Your task to perform on an android device: open app "DoorDash - Dasher" (install if not already installed) Image 0: 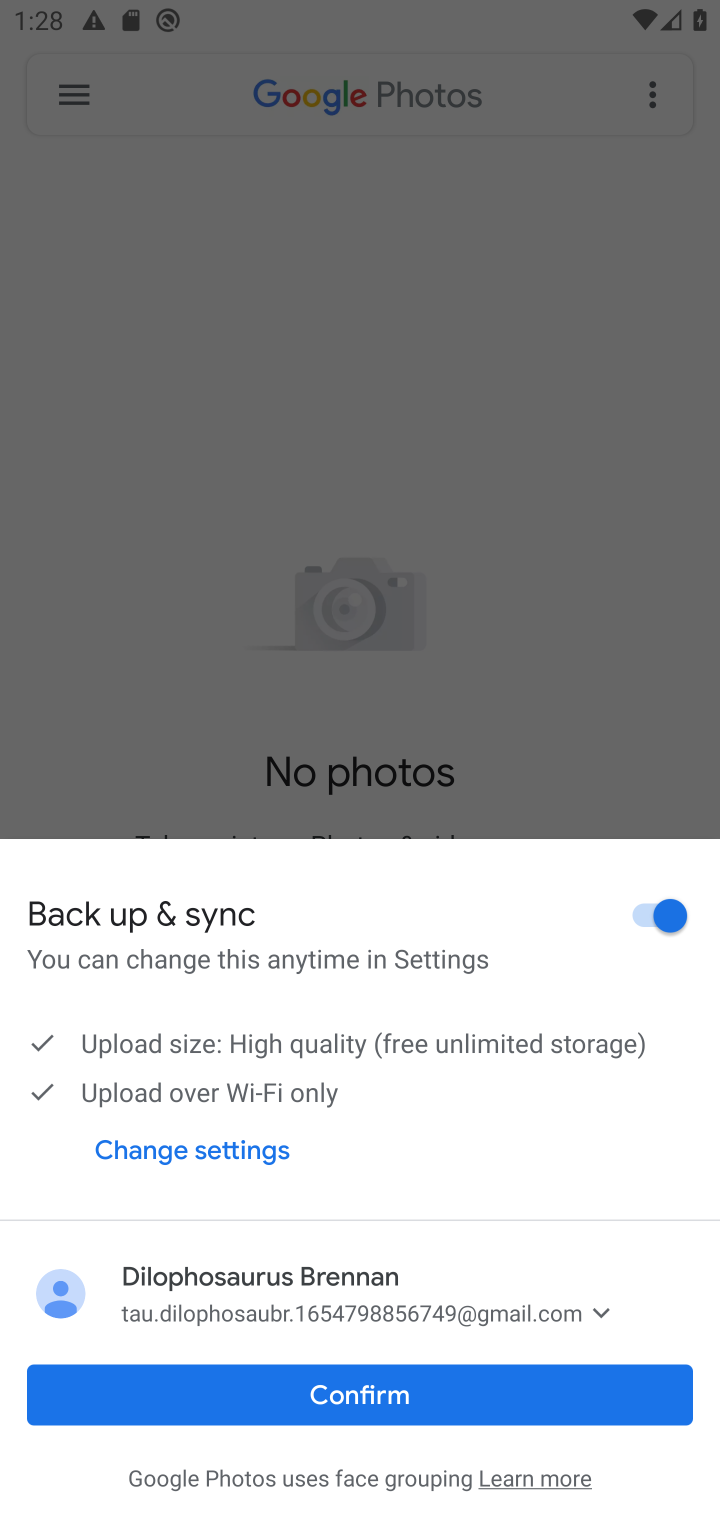
Step 0: press back button
Your task to perform on an android device: open app "DoorDash - Dasher" (install if not already installed) Image 1: 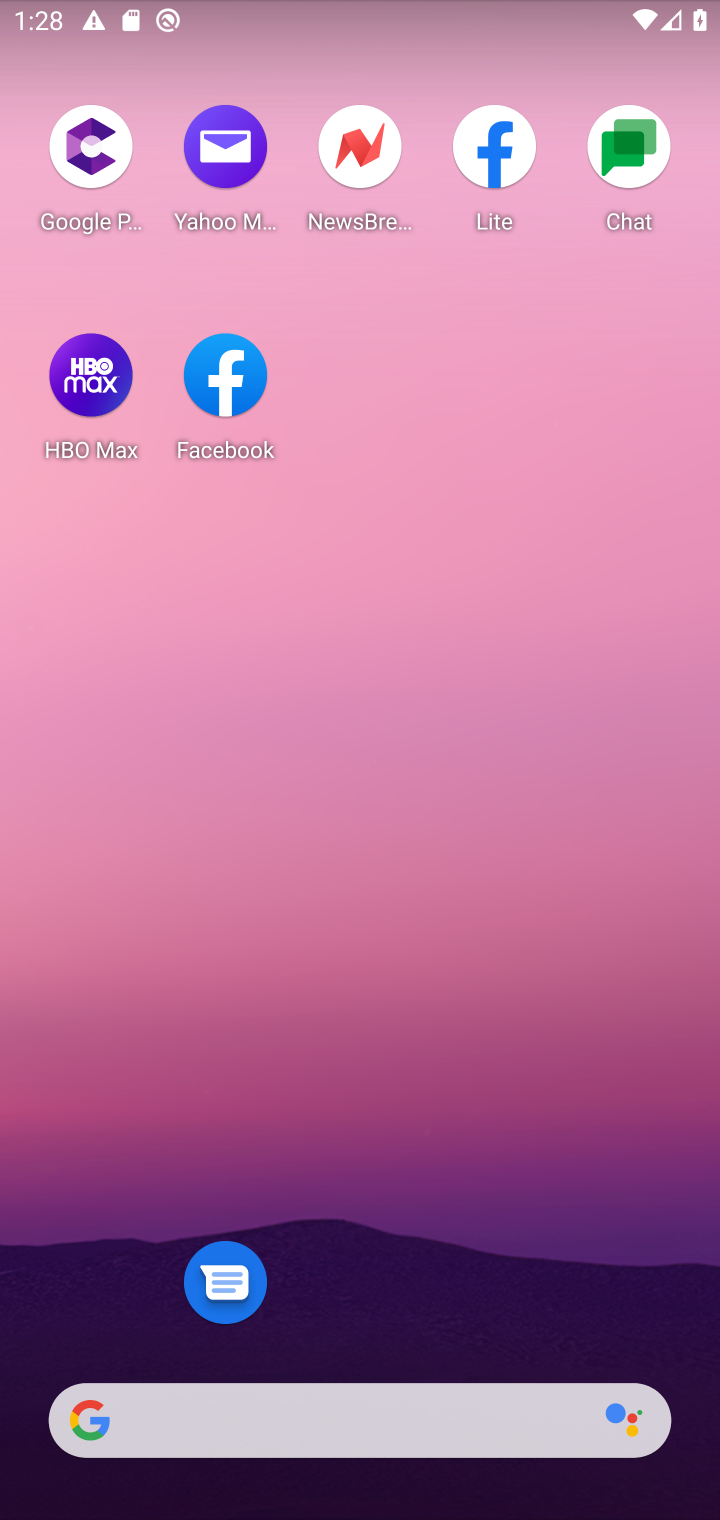
Step 1: press back button
Your task to perform on an android device: open app "DoorDash - Dasher" (install if not already installed) Image 2: 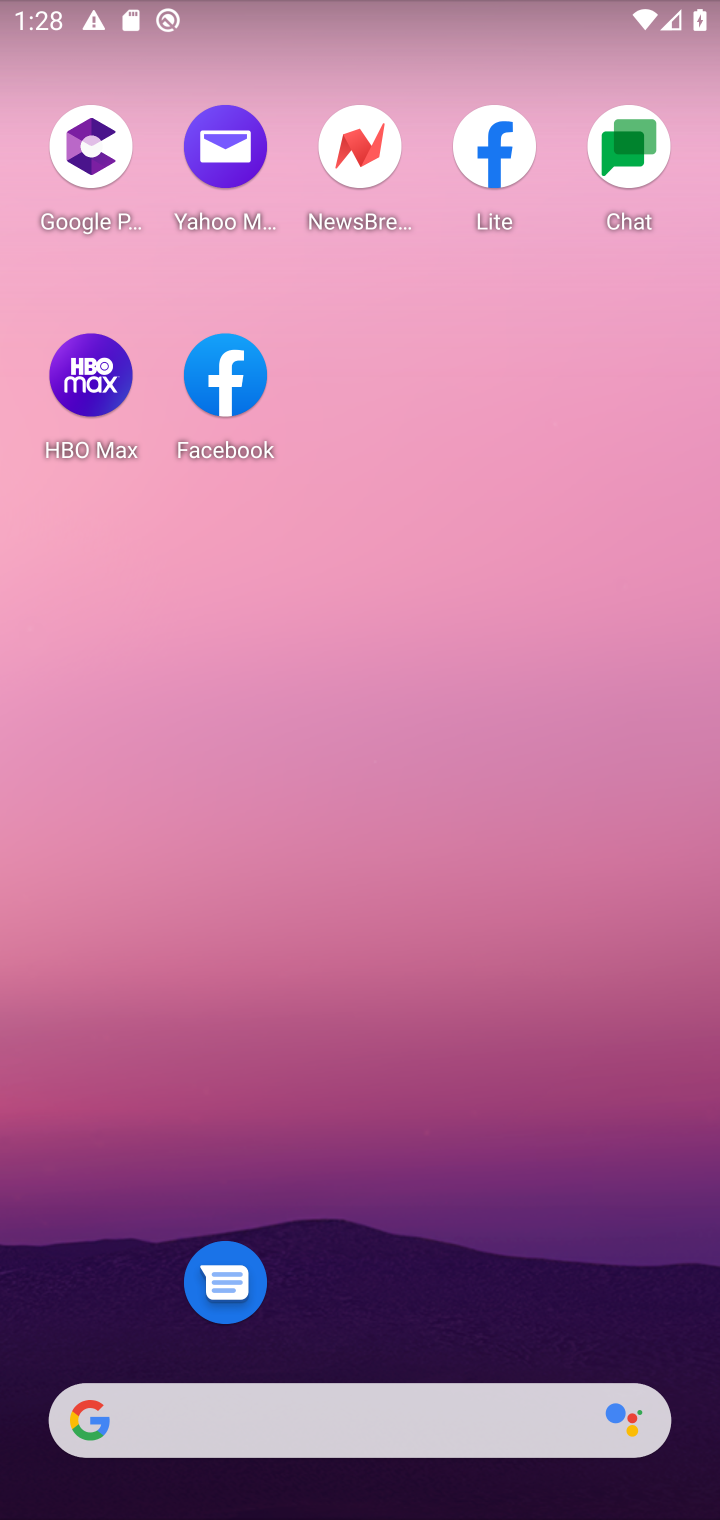
Step 2: press back button
Your task to perform on an android device: open app "DoorDash - Dasher" (install if not already installed) Image 3: 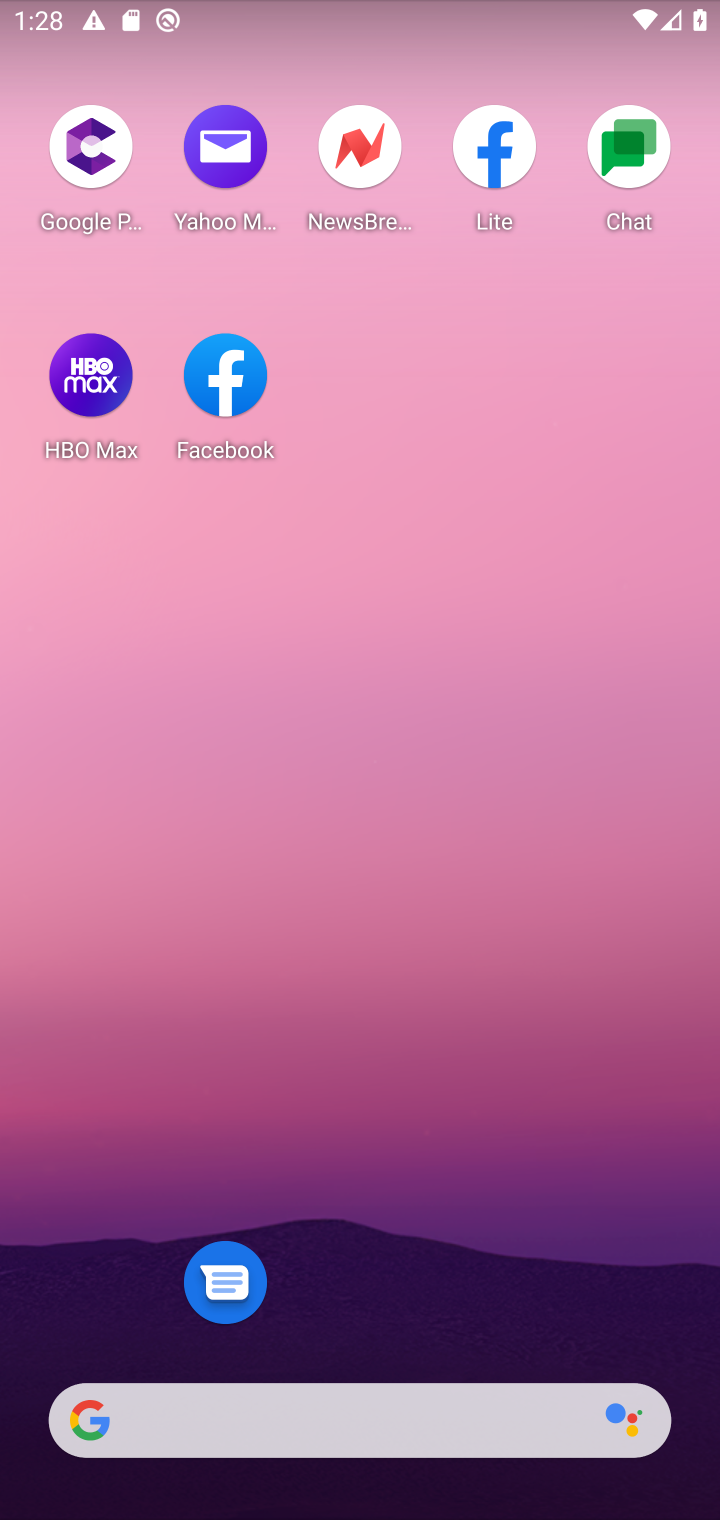
Step 3: drag from (429, 1328) to (451, 72)
Your task to perform on an android device: open app "DoorDash - Dasher" (install if not already installed) Image 4: 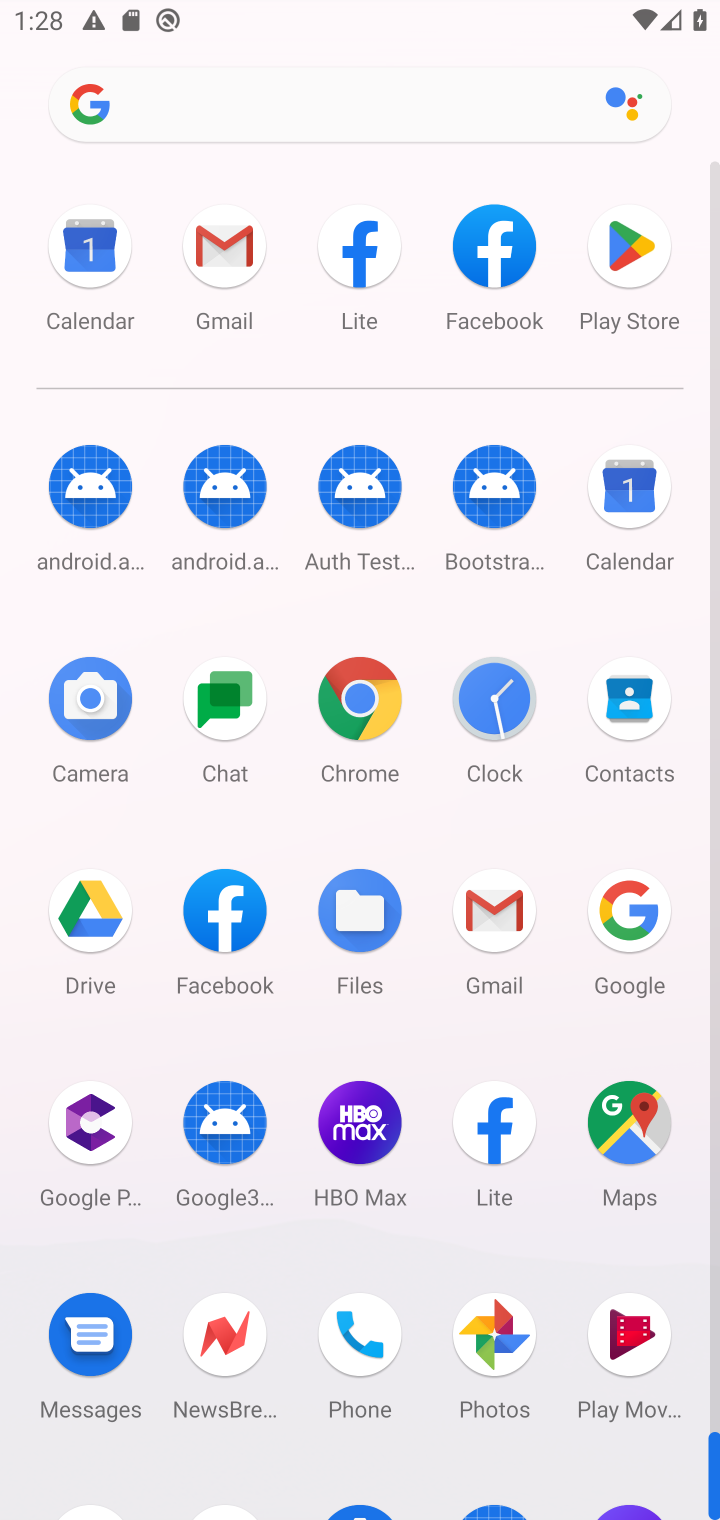
Step 4: click (618, 246)
Your task to perform on an android device: open app "DoorDash - Dasher" (install if not already installed) Image 5: 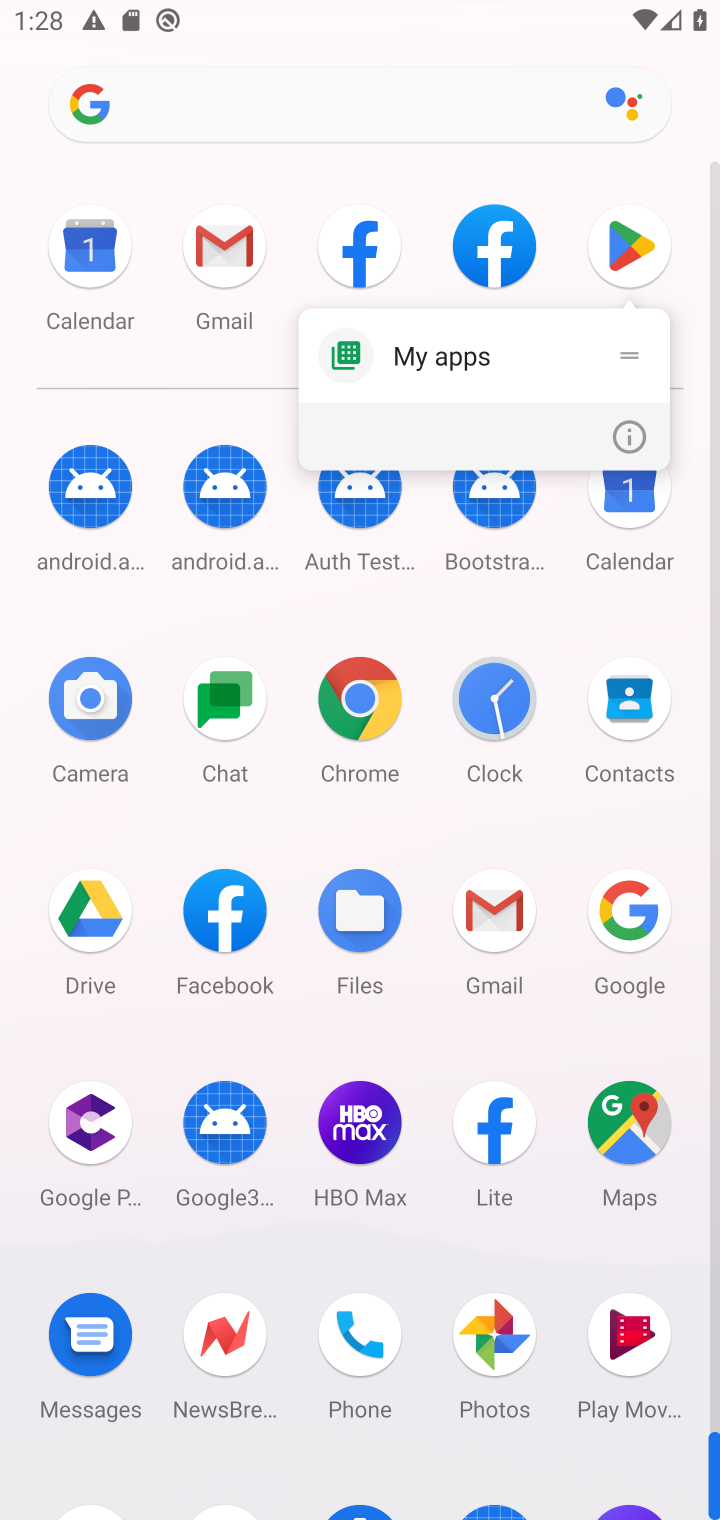
Step 5: click (620, 250)
Your task to perform on an android device: open app "DoorDash - Dasher" (install if not already installed) Image 6: 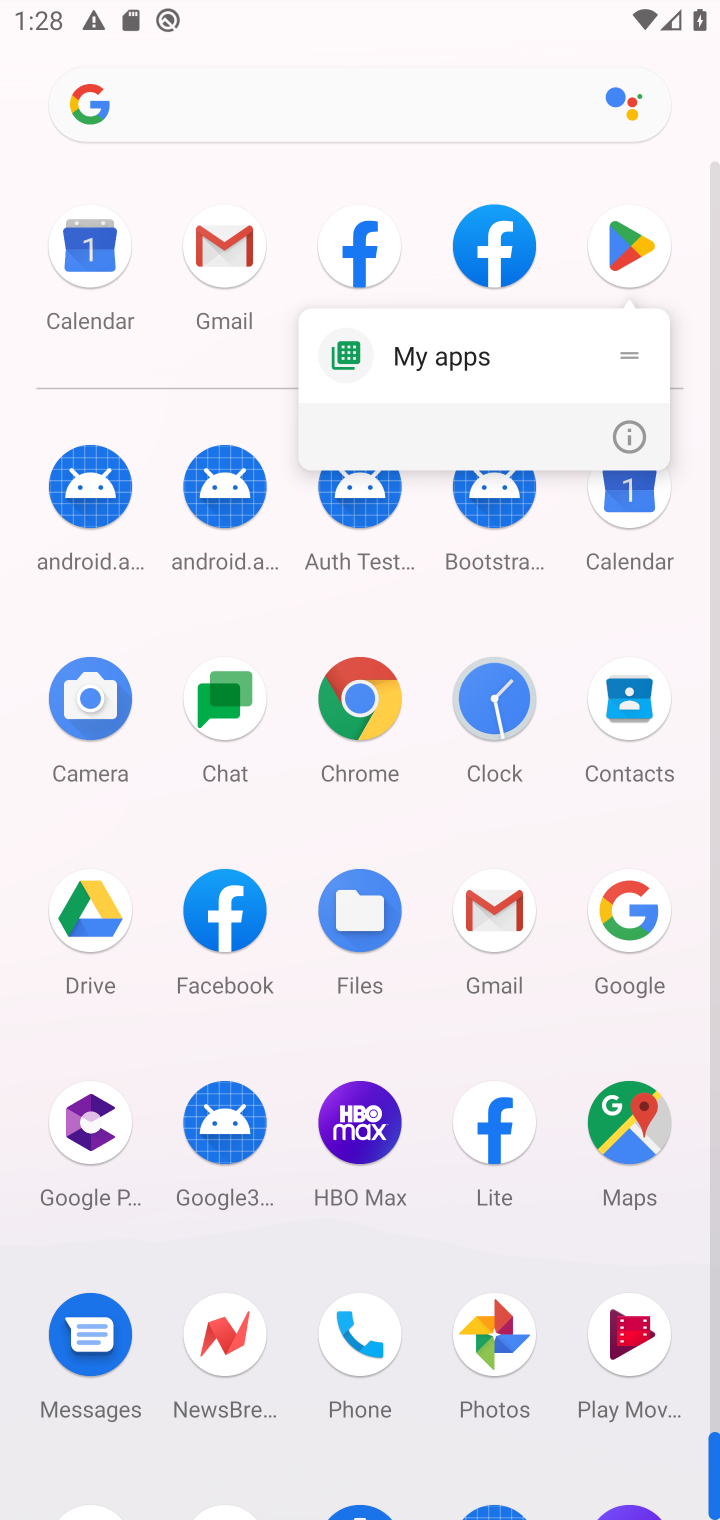
Step 6: click (611, 396)
Your task to perform on an android device: open app "DoorDash - Dasher" (install if not already installed) Image 7: 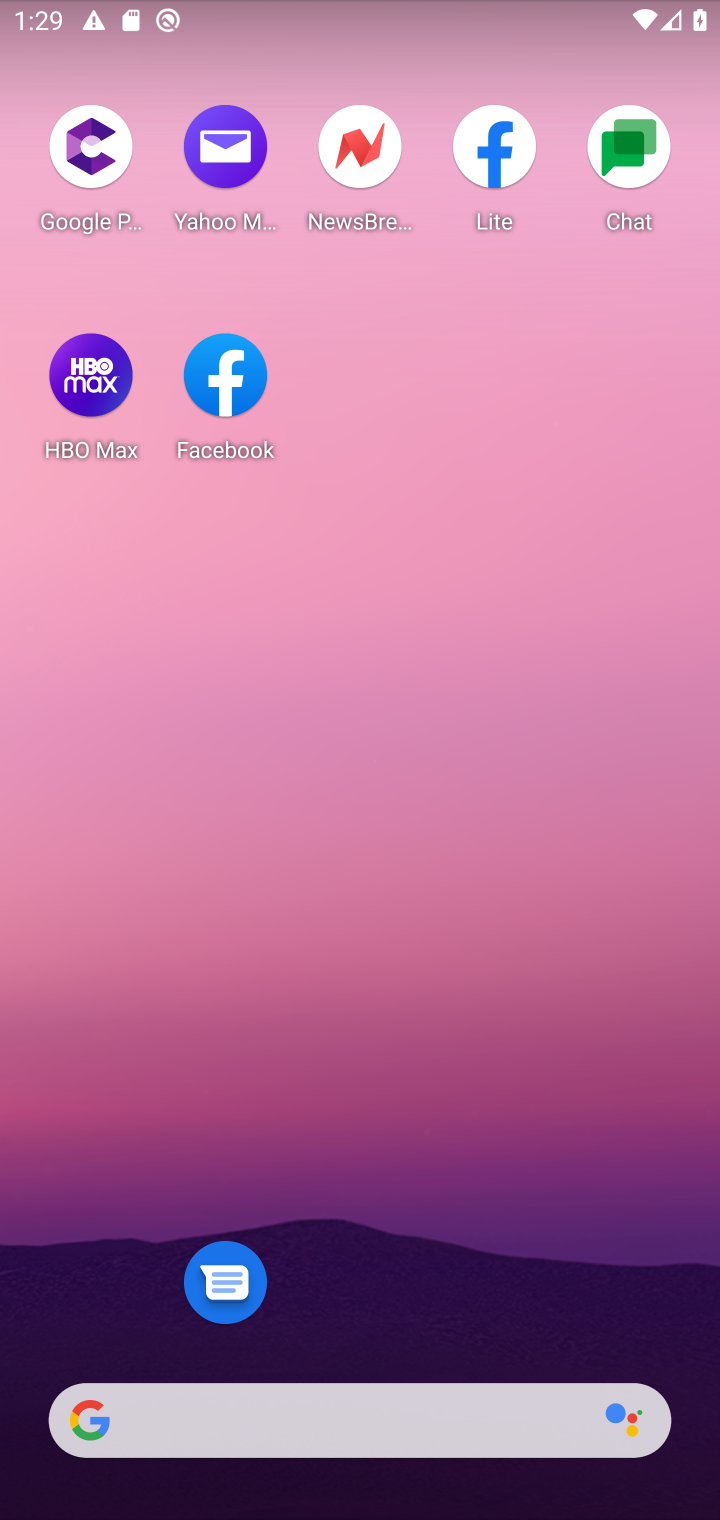
Step 7: drag from (339, 1333) to (341, 79)
Your task to perform on an android device: open app "DoorDash - Dasher" (install if not already installed) Image 8: 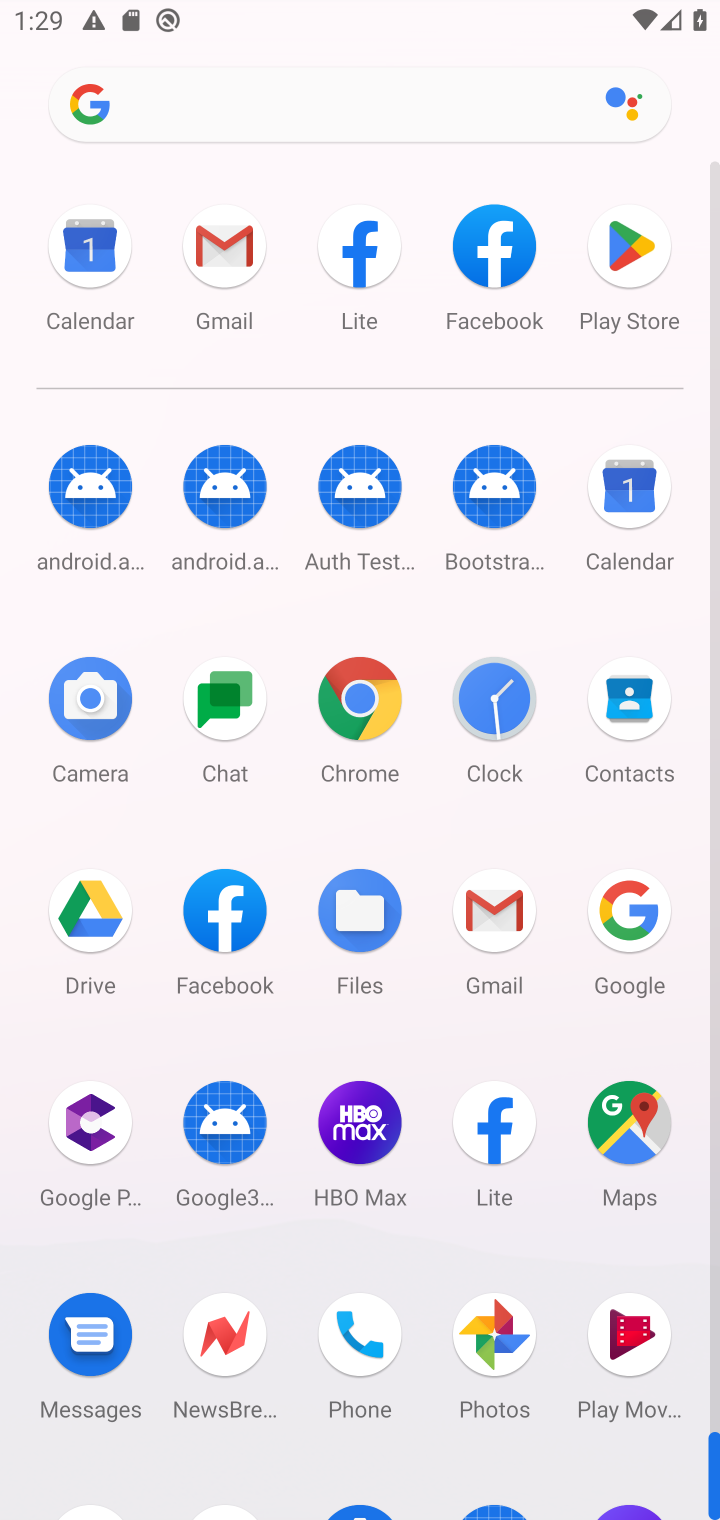
Step 8: drag from (281, 1291) to (161, 360)
Your task to perform on an android device: open app "DoorDash - Dasher" (install if not already installed) Image 9: 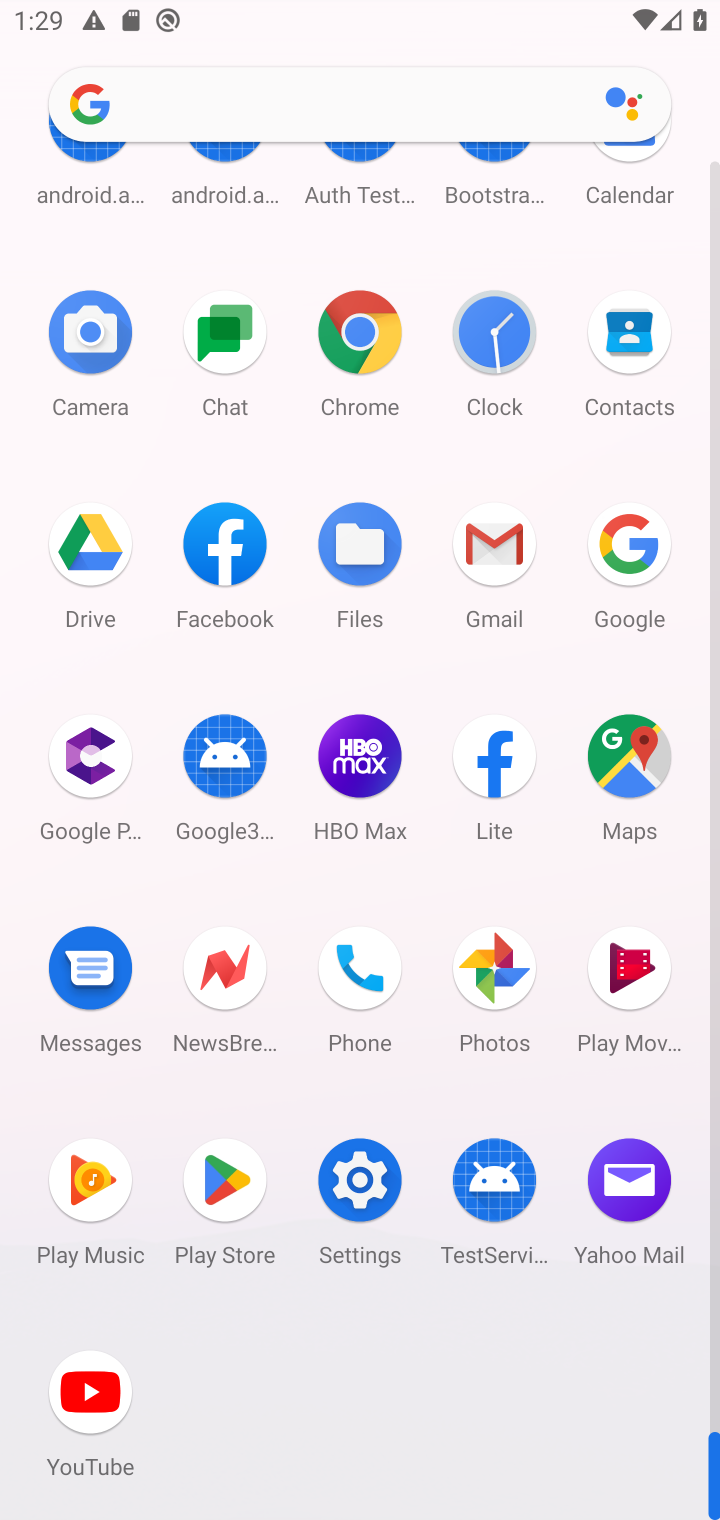
Step 9: click (211, 1171)
Your task to perform on an android device: open app "DoorDash - Dasher" (install if not already installed) Image 10: 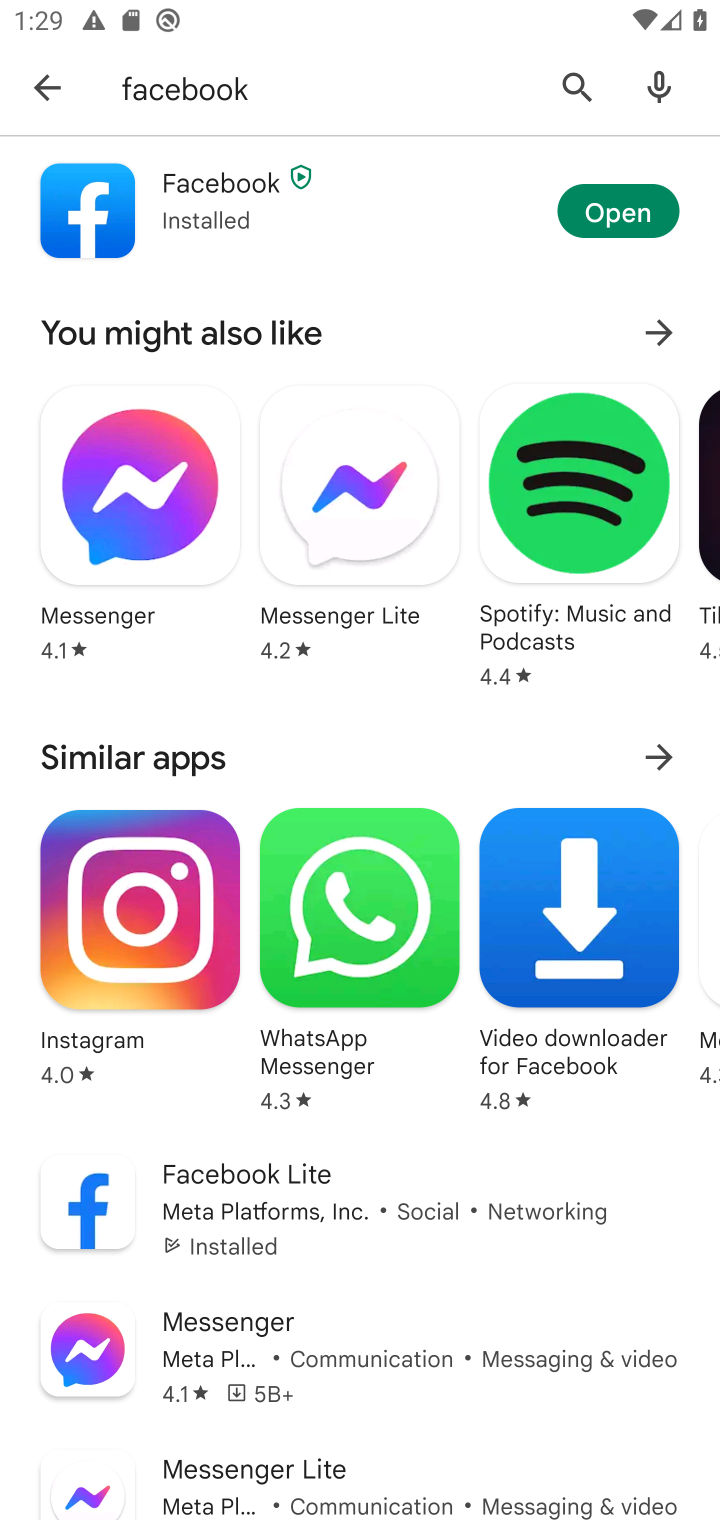
Step 10: click (50, 78)
Your task to perform on an android device: open app "DoorDash - Dasher" (install if not already installed) Image 11: 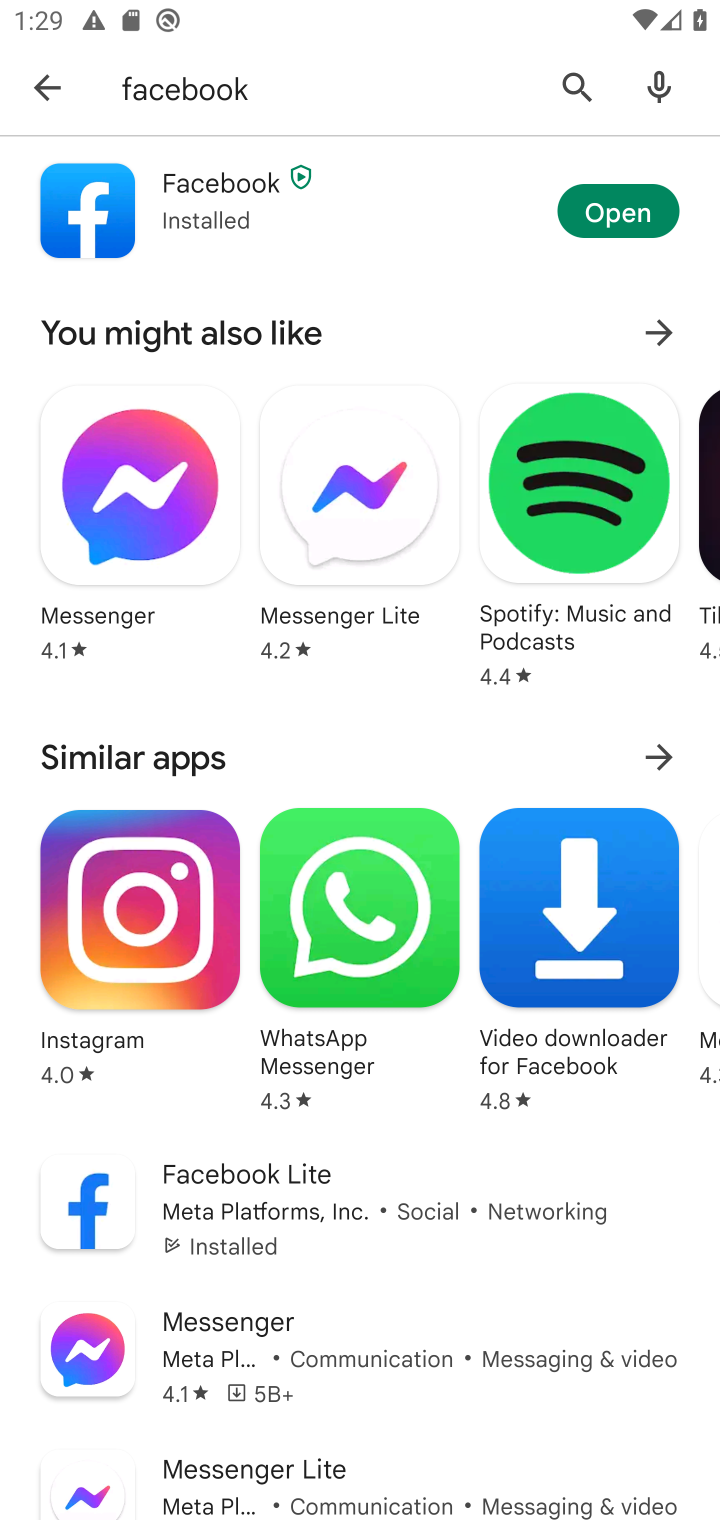
Step 11: click (43, 78)
Your task to perform on an android device: open app "DoorDash - Dasher" (install if not already installed) Image 12: 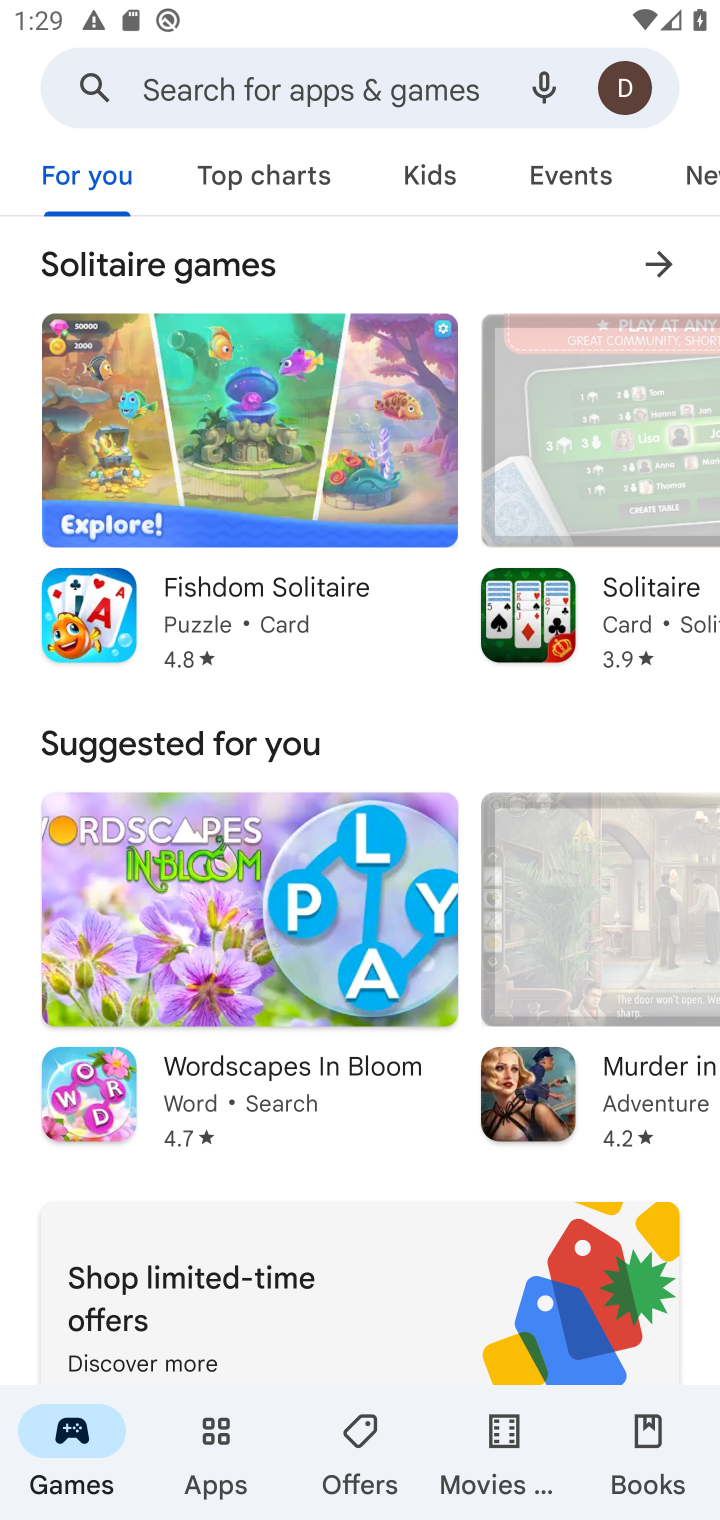
Step 12: click (290, 93)
Your task to perform on an android device: open app "DoorDash - Dasher" (install if not already installed) Image 13: 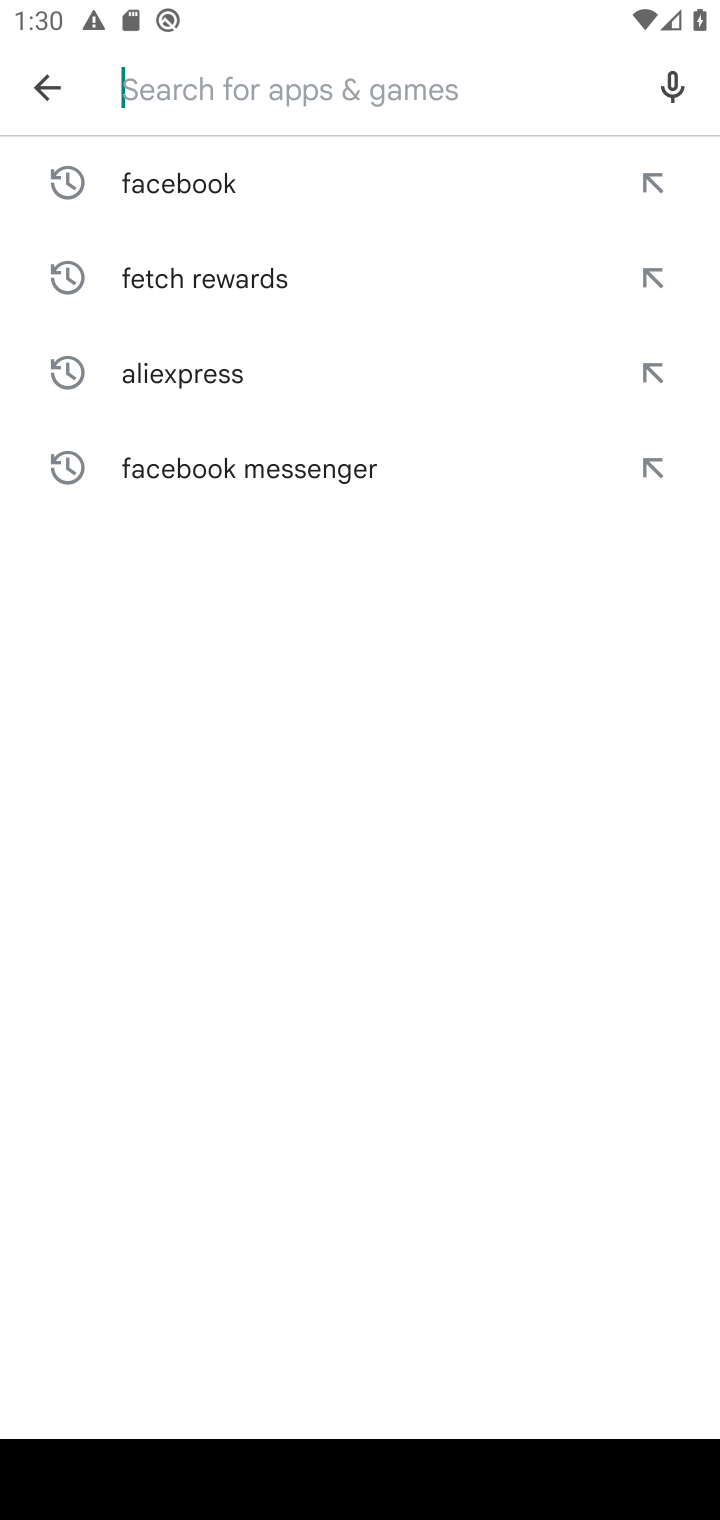
Step 13: type "DoorDash - Dasher"
Your task to perform on an android device: open app "DoorDash - Dasher" (install if not already installed) Image 14: 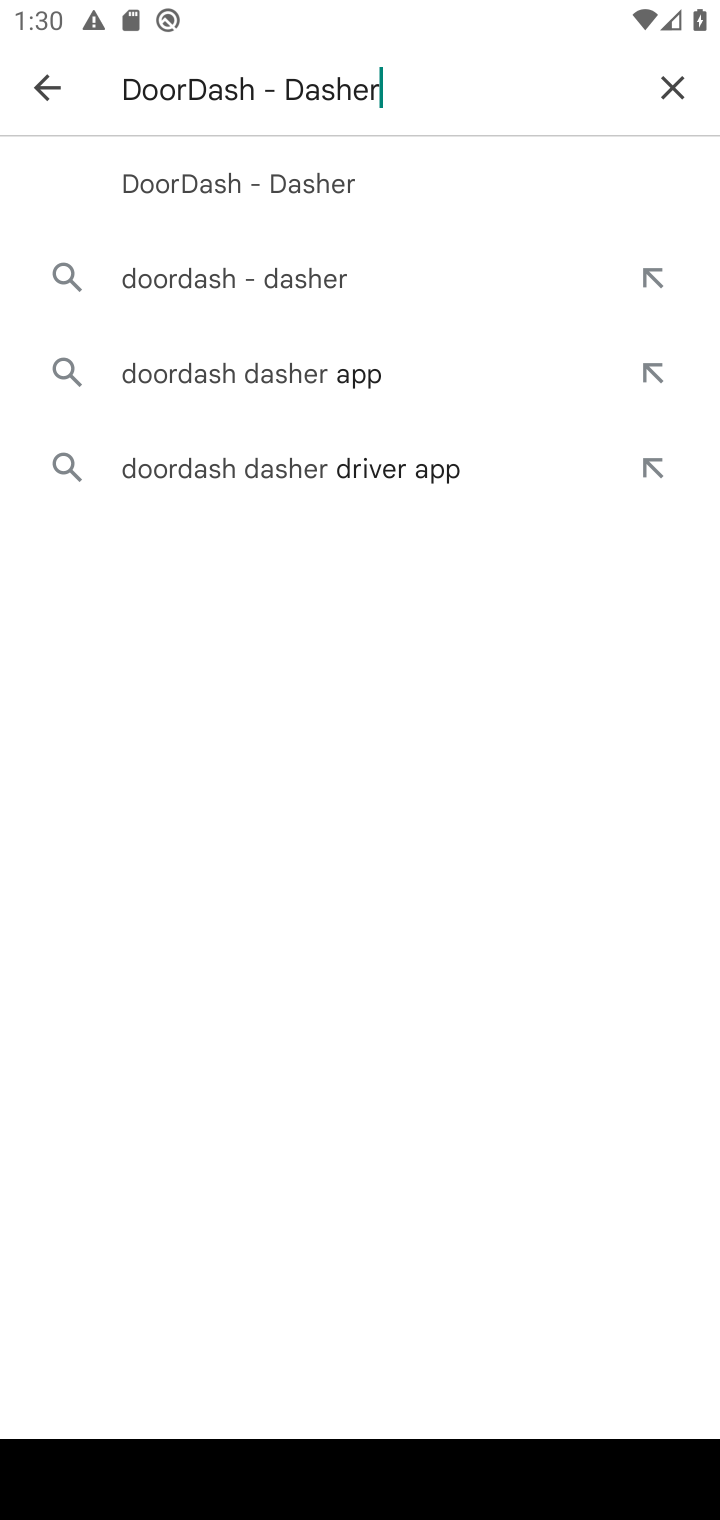
Step 14: type ""
Your task to perform on an android device: open app "DoorDash - Dasher" (install if not already installed) Image 15: 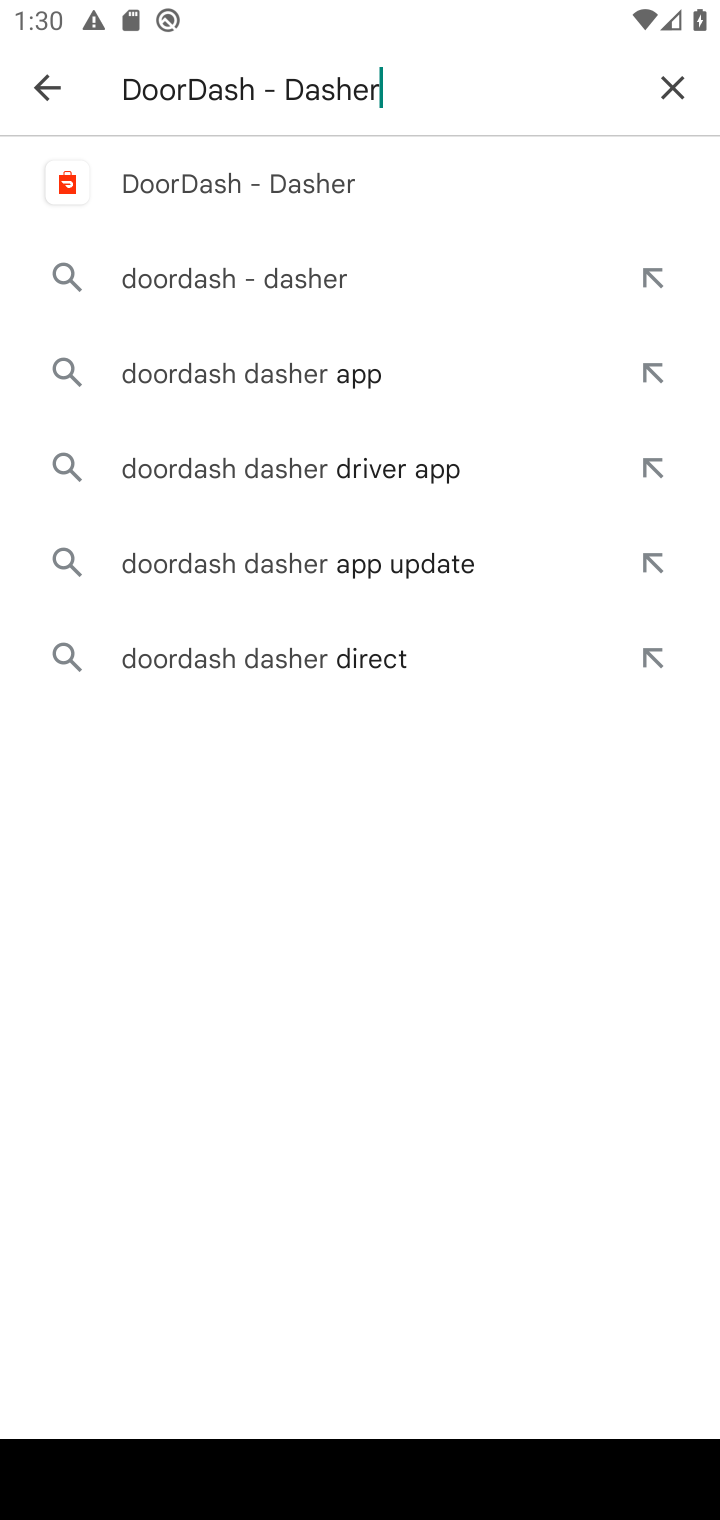
Step 15: click (153, 182)
Your task to perform on an android device: open app "DoorDash - Dasher" (install if not already installed) Image 16: 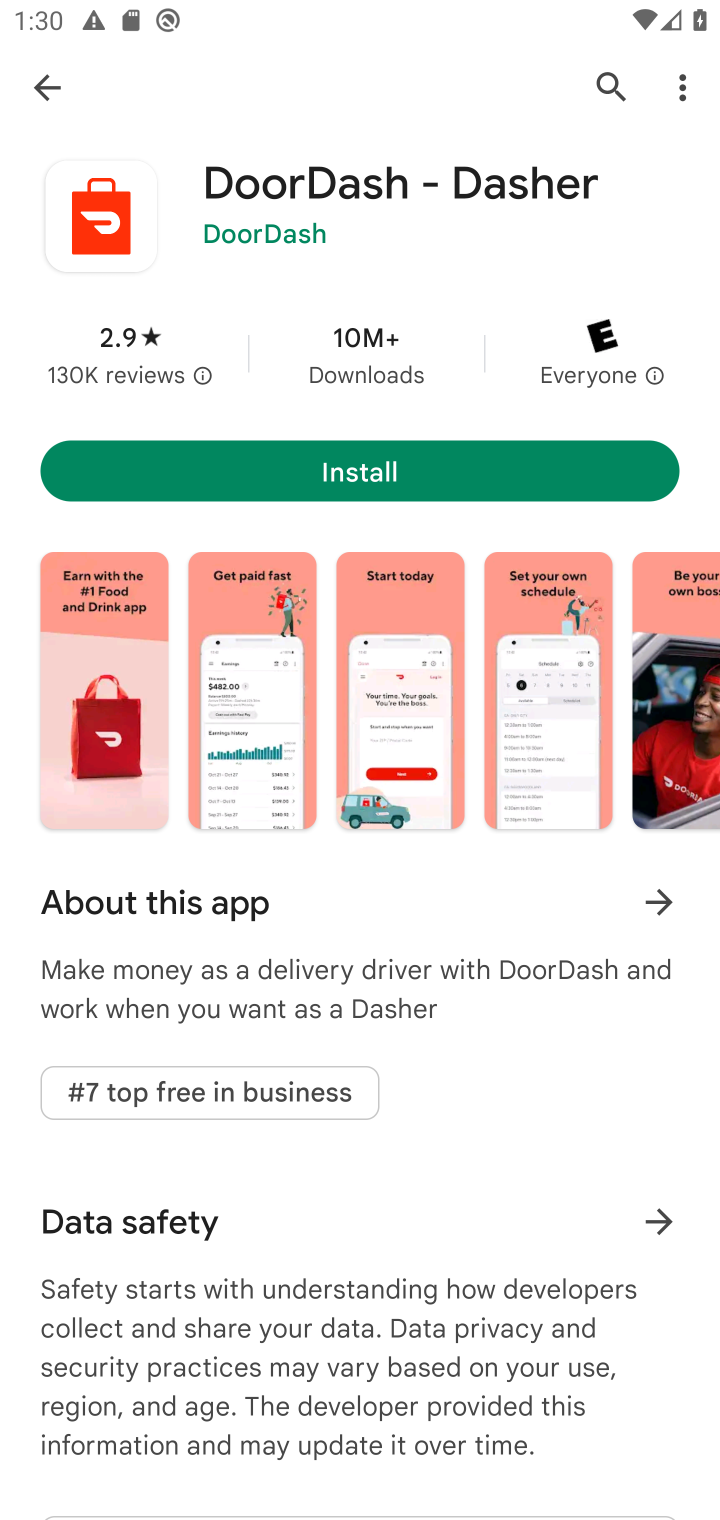
Step 16: click (469, 460)
Your task to perform on an android device: open app "DoorDash - Dasher" (install if not already installed) Image 17: 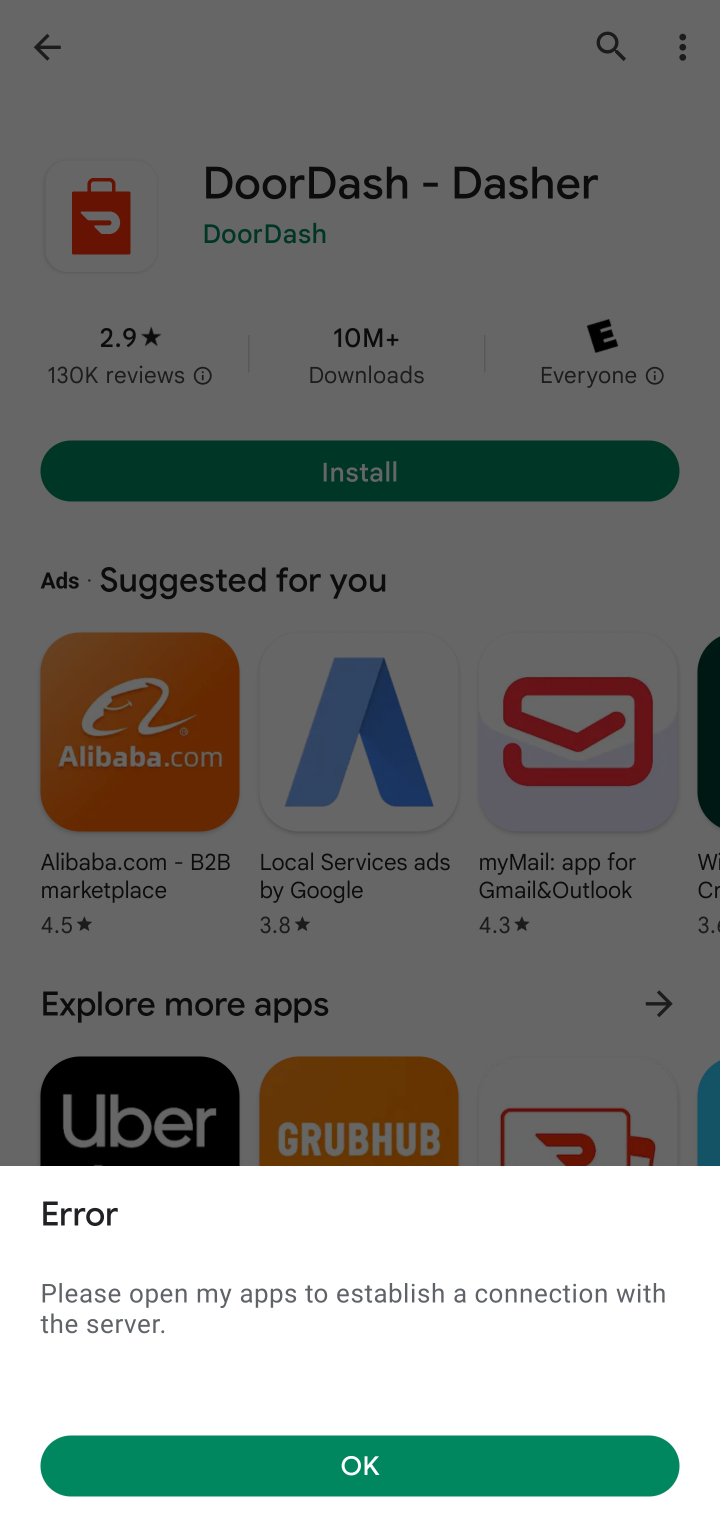
Step 17: click (176, 1447)
Your task to perform on an android device: open app "DoorDash - Dasher" (install if not already installed) Image 18: 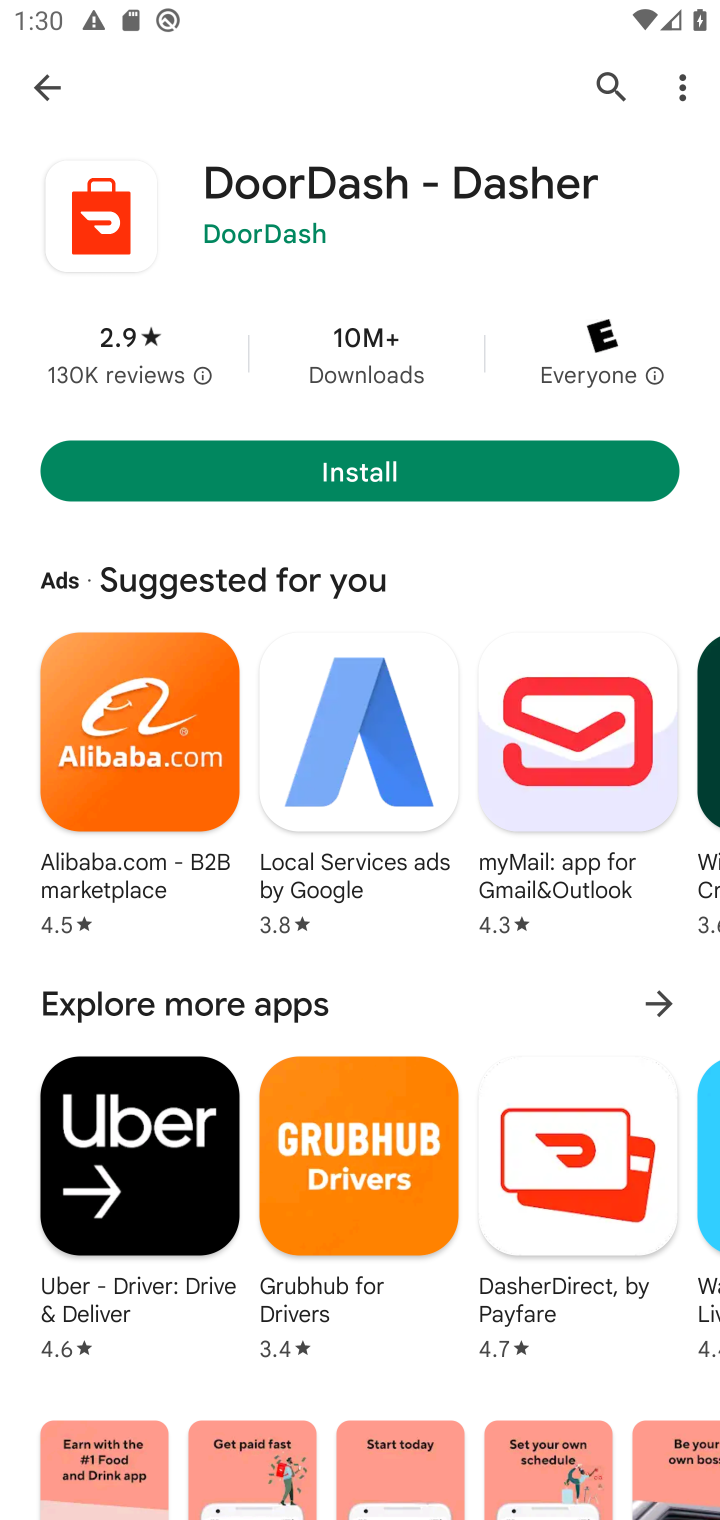
Step 18: click (441, 458)
Your task to perform on an android device: open app "DoorDash - Dasher" (install if not already installed) Image 19: 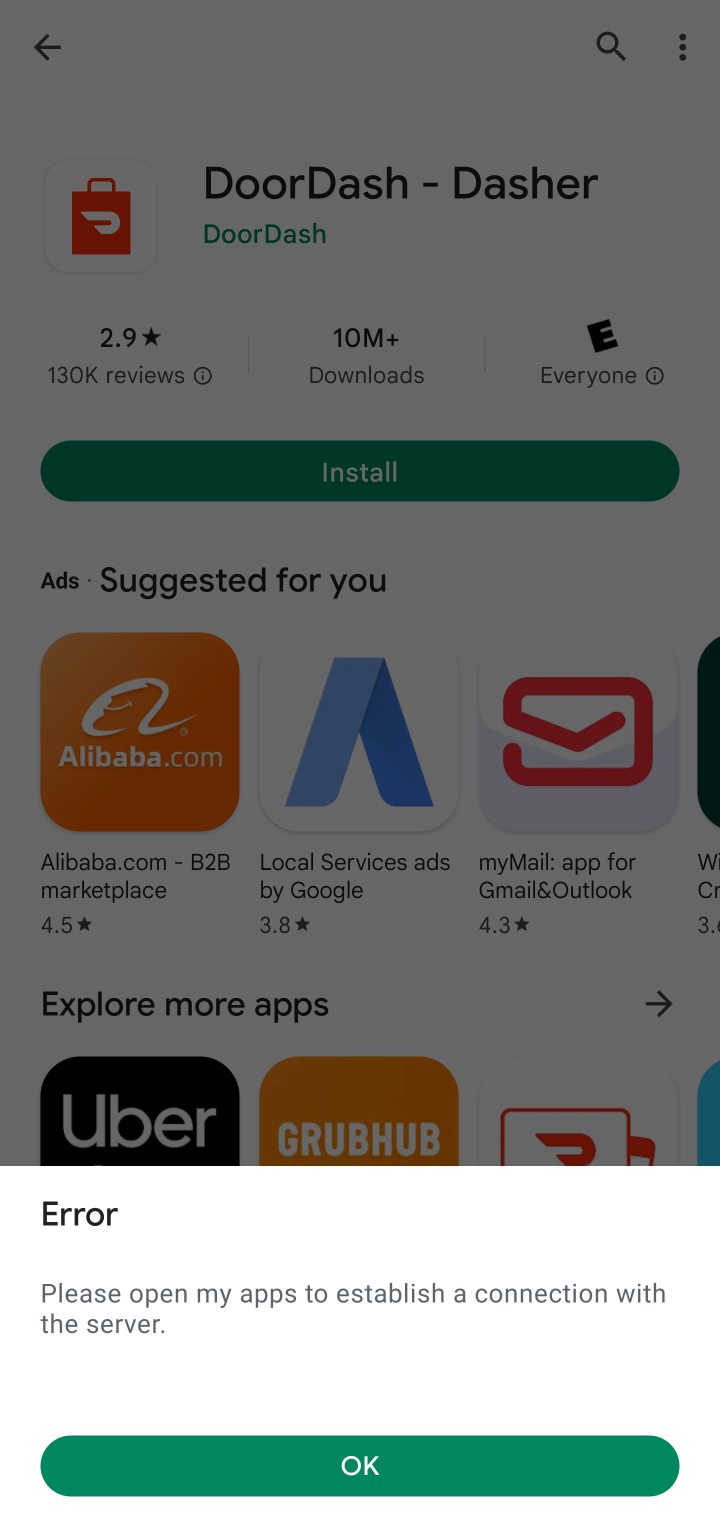
Step 19: task complete